Your task to perform on an android device: check storage Image 0: 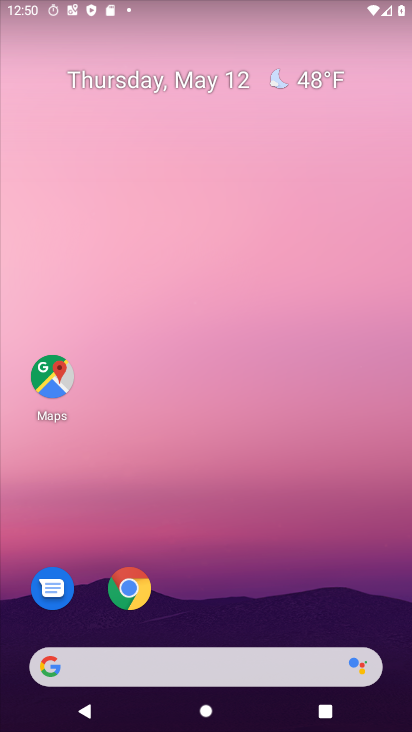
Step 0: drag from (239, 606) to (289, 136)
Your task to perform on an android device: check storage Image 1: 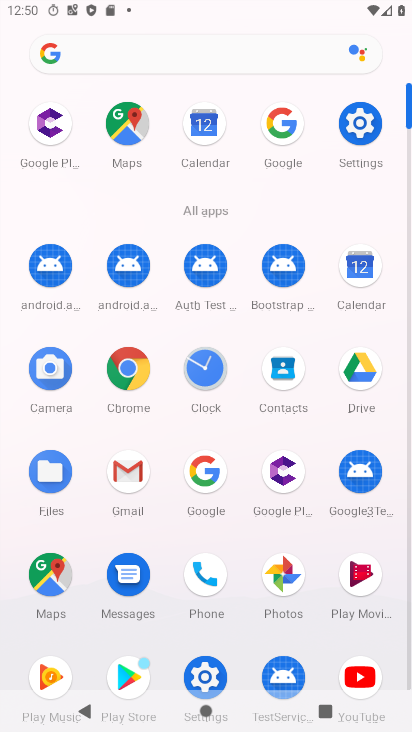
Step 1: click (363, 128)
Your task to perform on an android device: check storage Image 2: 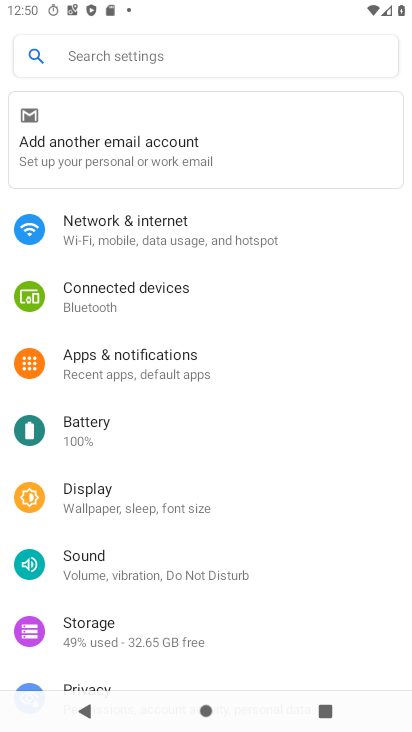
Step 2: click (111, 635)
Your task to perform on an android device: check storage Image 3: 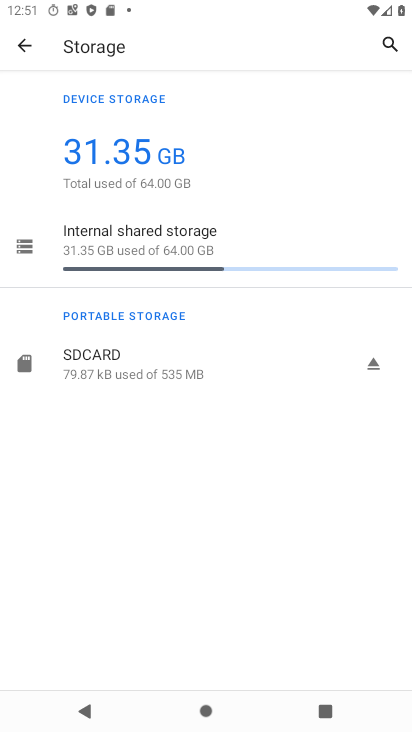
Step 3: task complete